Your task to perform on an android device: delete browsing data in the chrome app Image 0: 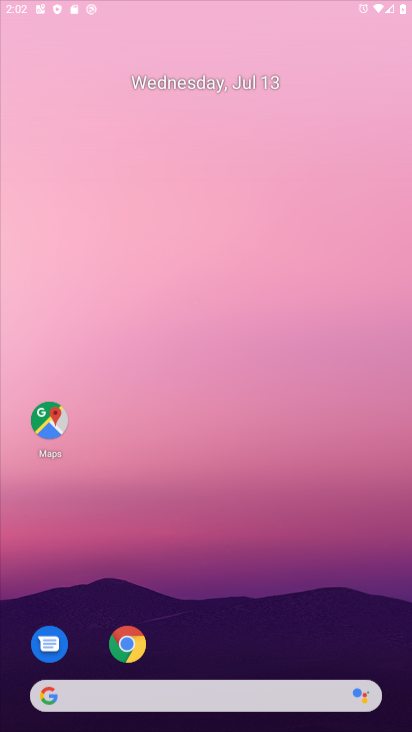
Step 0: click (202, 684)
Your task to perform on an android device: delete browsing data in the chrome app Image 1: 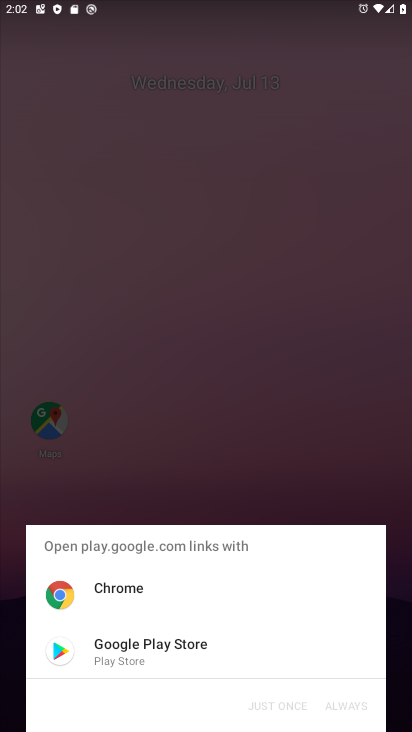
Step 1: click (130, 655)
Your task to perform on an android device: delete browsing data in the chrome app Image 2: 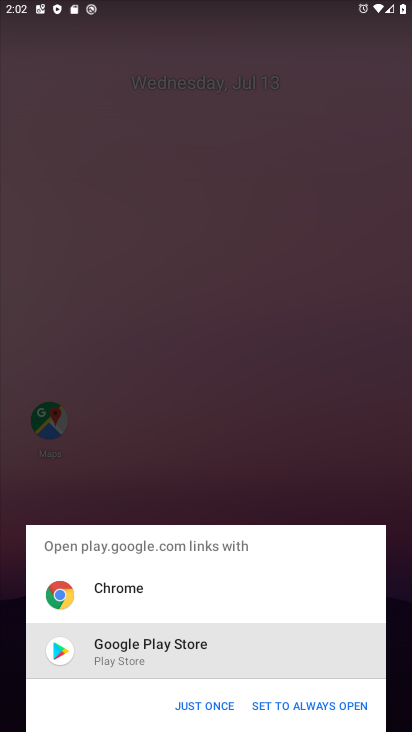
Step 2: click (205, 696)
Your task to perform on an android device: delete browsing data in the chrome app Image 3: 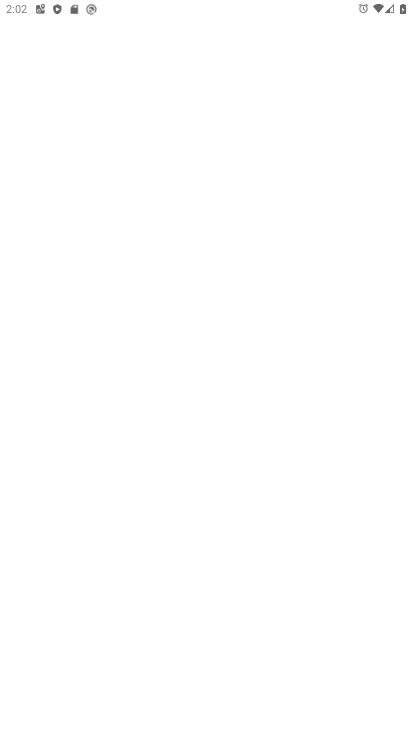
Step 3: press home button
Your task to perform on an android device: delete browsing data in the chrome app Image 4: 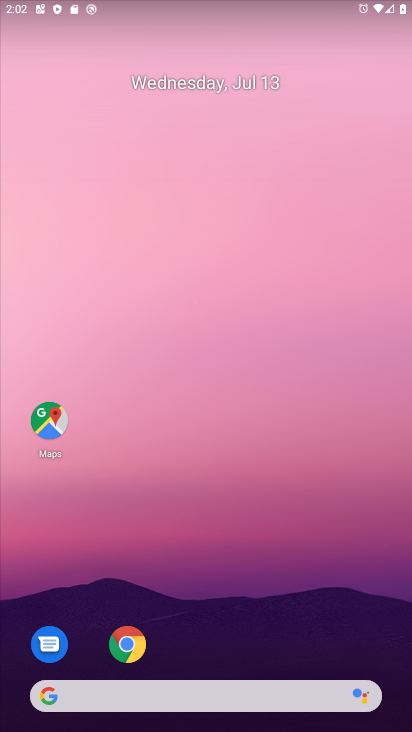
Step 4: click (132, 641)
Your task to perform on an android device: delete browsing data in the chrome app Image 5: 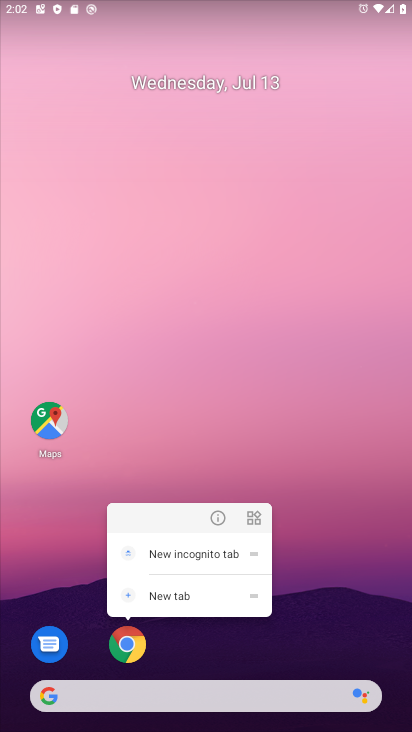
Step 5: click (123, 640)
Your task to perform on an android device: delete browsing data in the chrome app Image 6: 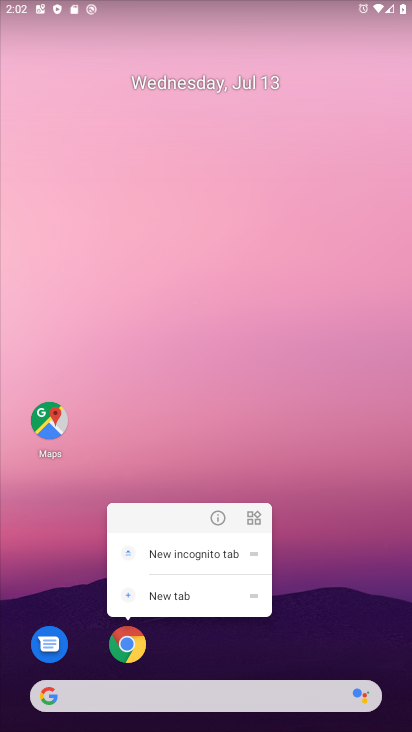
Step 6: click (119, 651)
Your task to perform on an android device: delete browsing data in the chrome app Image 7: 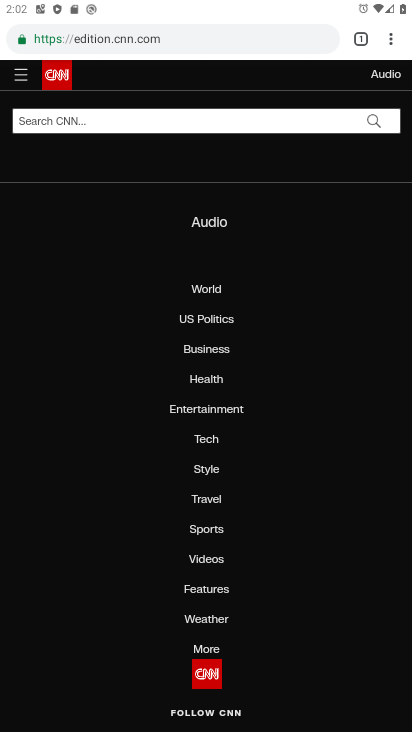
Step 7: click (387, 39)
Your task to perform on an android device: delete browsing data in the chrome app Image 8: 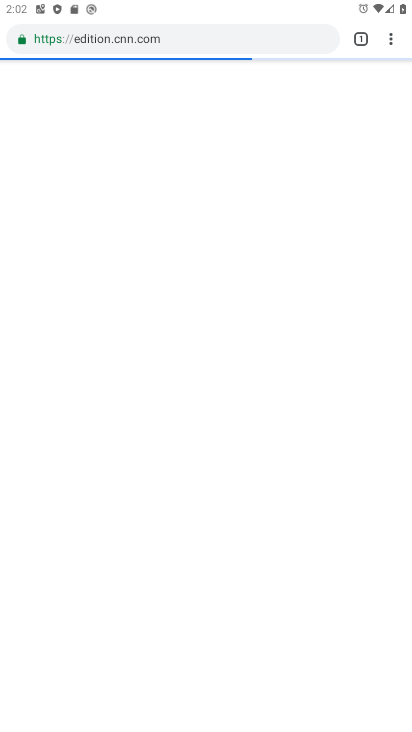
Step 8: drag from (393, 42) to (255, 218)
Your task to perform on an android device: delete browsing data in the chrome app Image 9: 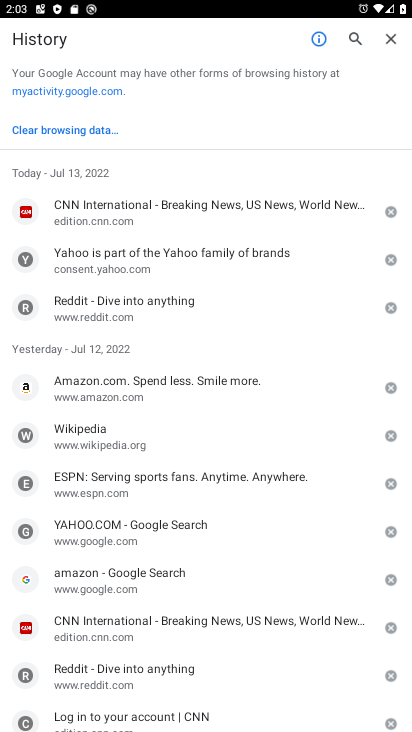
Step 9: click (72, 130)
Your task to perform on an android device: delete browsing data in the chrome app Image 10: 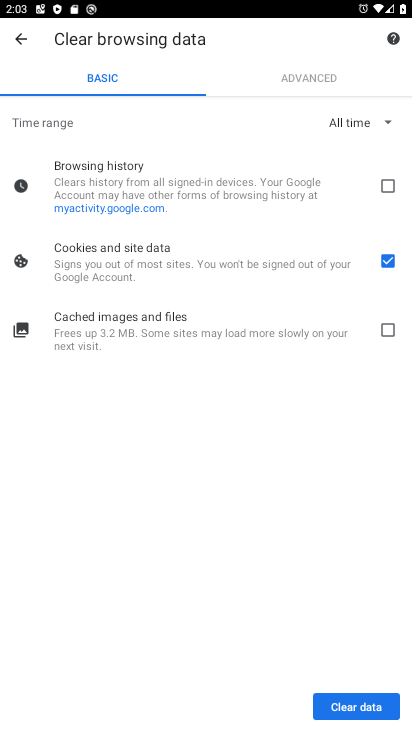
Step 10: click (381, 188)
Your task to perform on an android device: delete browsing data in the chrome app Image 11: 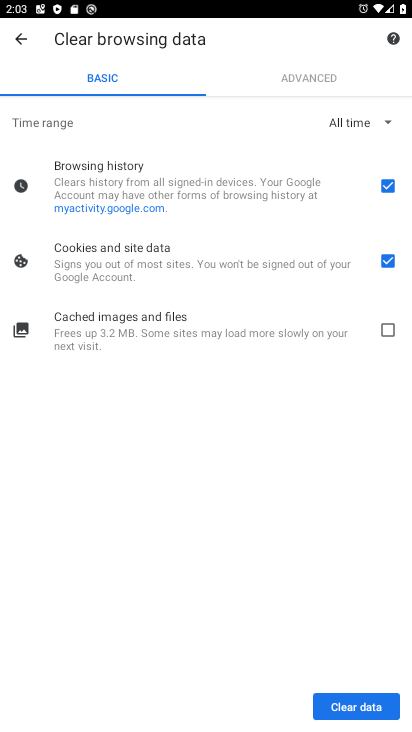
Step 11: click (348, 705)
Your task to perform on an android device: delete browsing data in the chrome app Image 12: 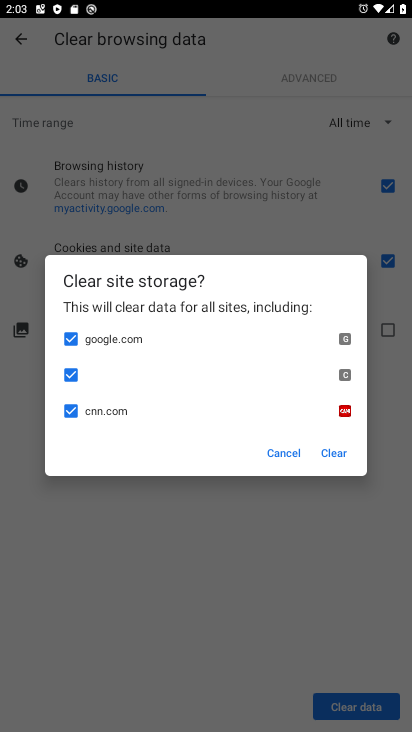
Step 12: click (333, 463)
Your task to perform on an android device: delete browsing data in the chrome app Image 13: 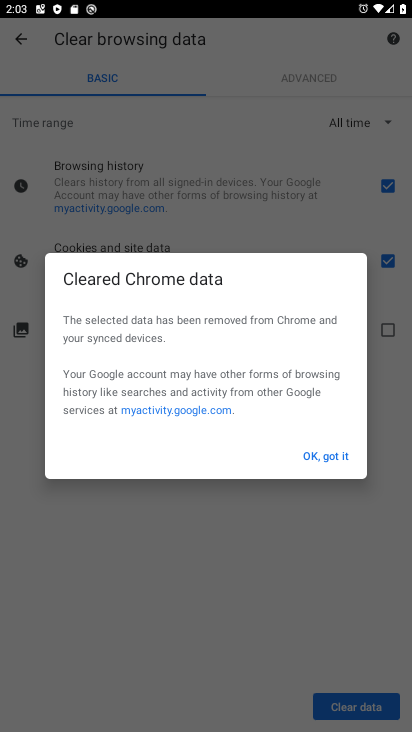
Step 13: click (330, 453)
Your task to perform on an android device: delete browsing data in the chrome app Image 14: 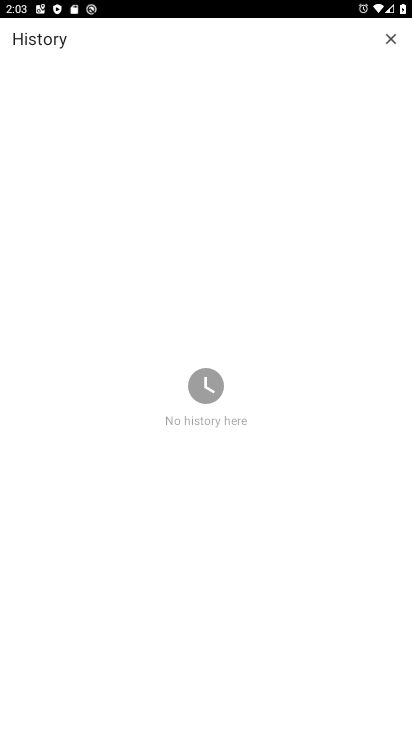
Step 14: task complete